Your task to perform on an android device: Open privacy settings Image 0: 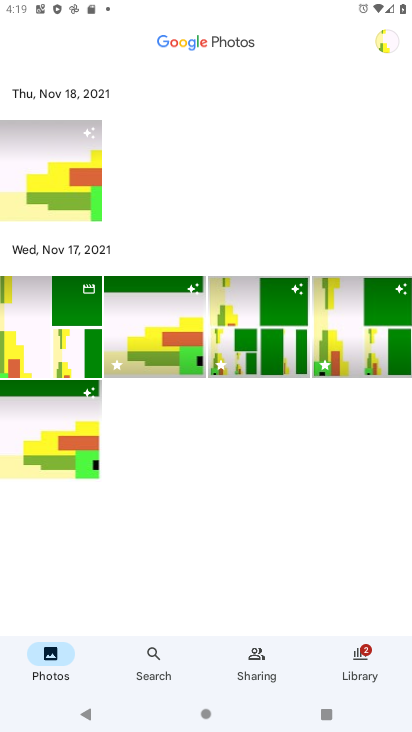
Step 0: press home button
Your task to perform on an android device: Open privacy settings Image 1: 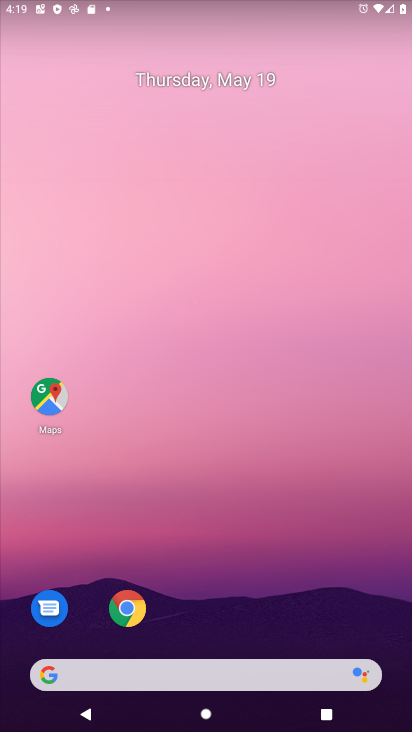
Step 1: drag from (239, 593) to (244, 84)
Your task to perform on an android device: Open privacy settings Image 2: 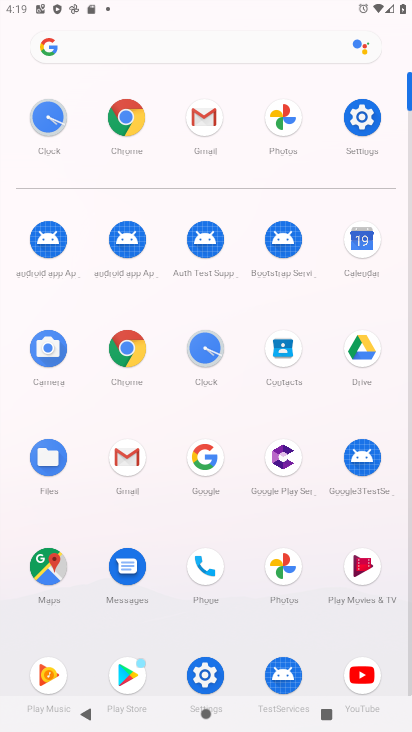
Step 2: click (372, 122)
Your task to perform on an android device: Open privacy settings Image 3: 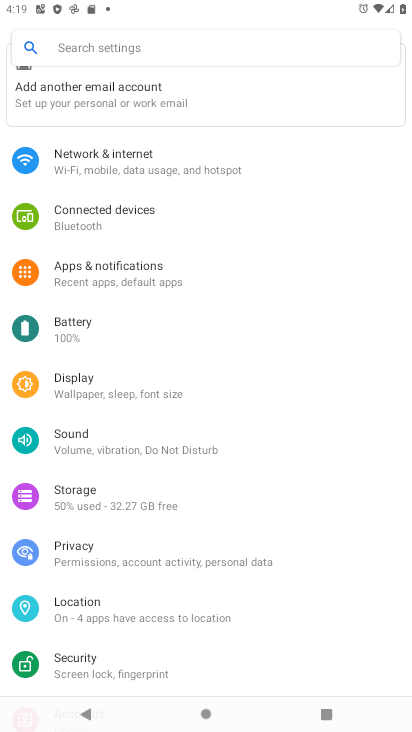
Step 3: click (122, 565)
Your task to perform on an android device: Open privacy settings Image 4: 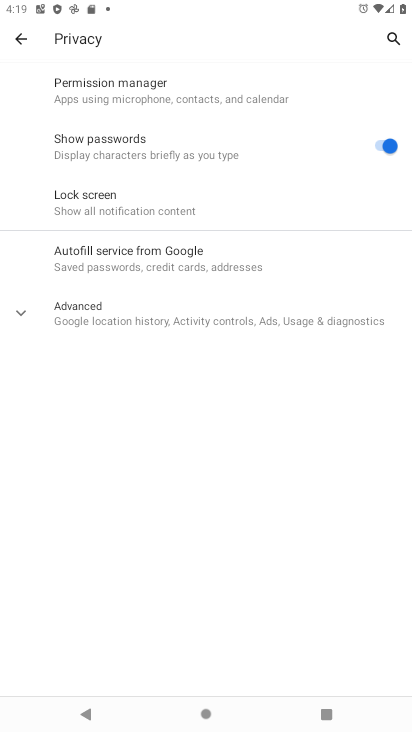
Step 4: task complete